Your task to perform on an android device: Search for pizza restaurants on Maps Image 0: 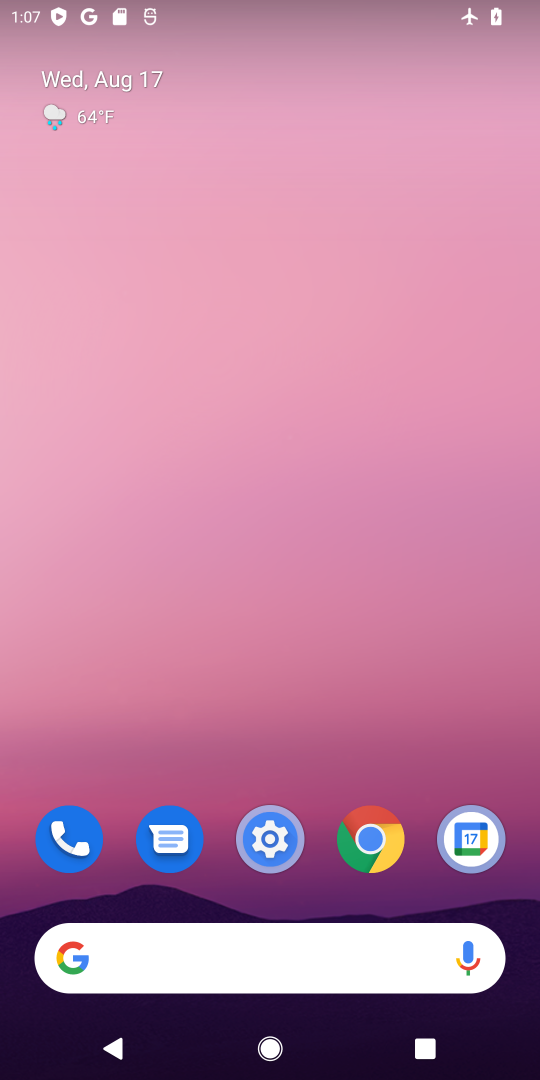
Step 0: drag from (261, 975) to (252, 229)
Your task to perform on an android device: Search for pizza restaurants on Maps Image 1: 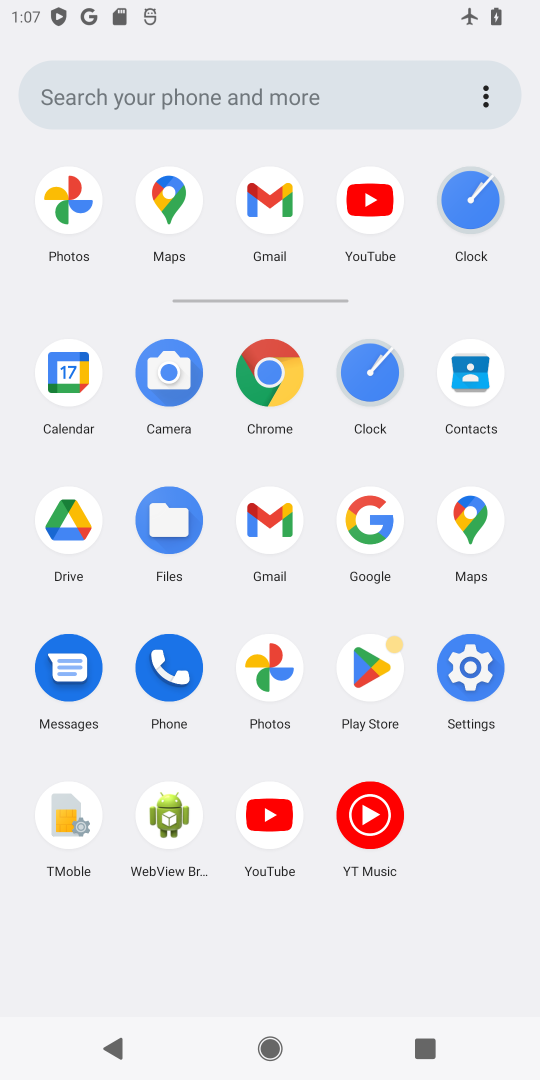
Step 1: click (172, 194)
Your task to perform on an android device: Search for pizza restaurants on Maps Image 2: 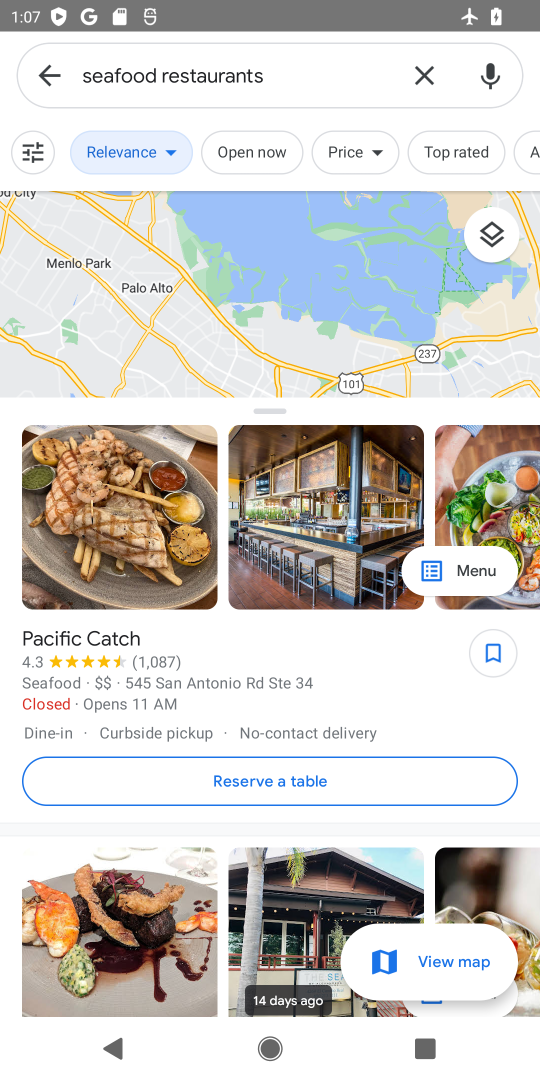
Step 2: click (427, 76)
Your task to perform on an android device: Search for pizza restaurants on Maps Image 3: 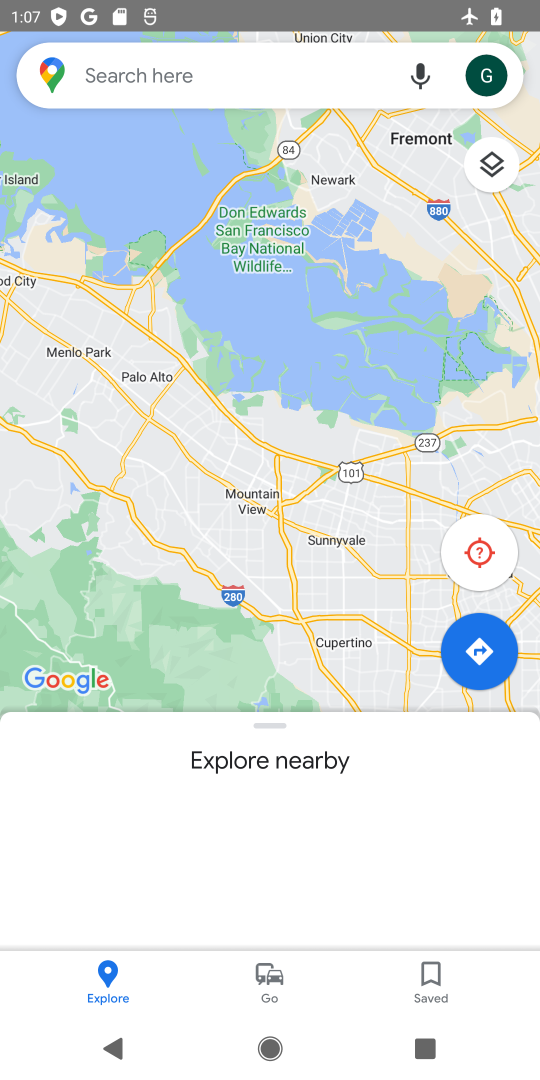
Step 3: click (286, 81)
Your task to perform on an android device: Search for pizza restaurants on Maps Image 4: 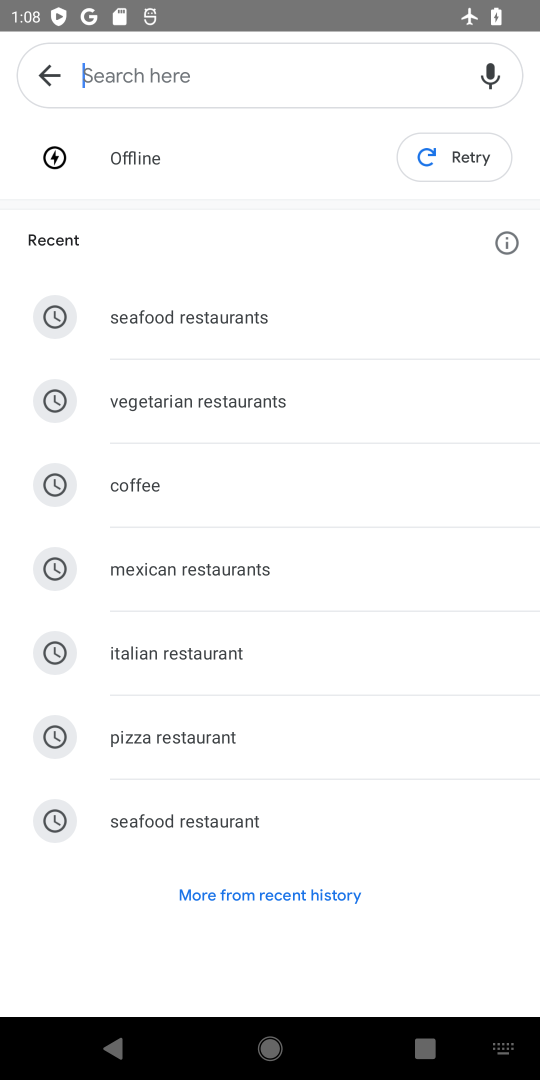
Step 4: type "pizza restaurants"
Your task to perform on an android device: Search for pizza restaurants on Maps Image 5: 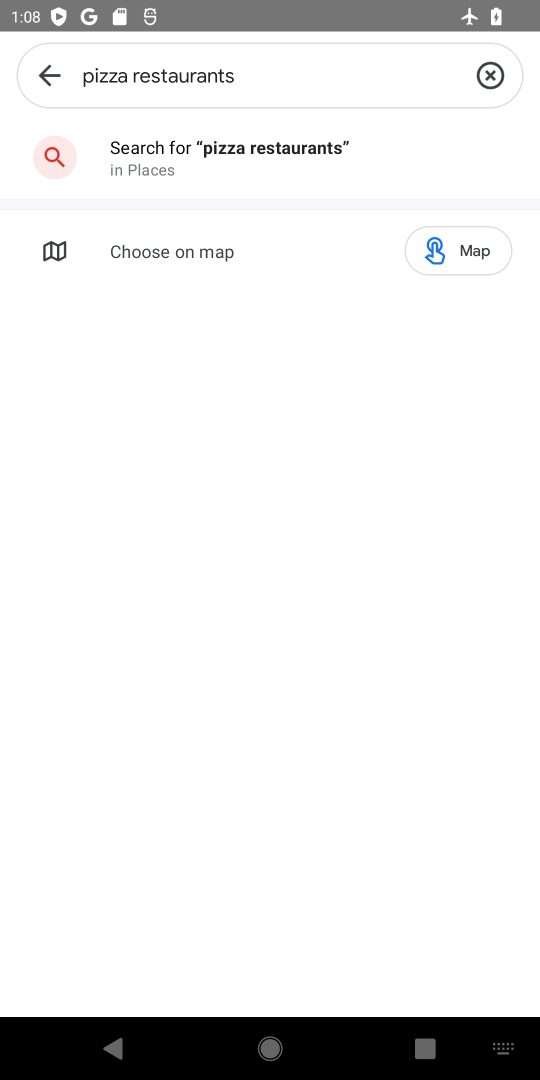
Step 5: task complete